Your task to perform on an android device: star an email in the gmail app Image 0: 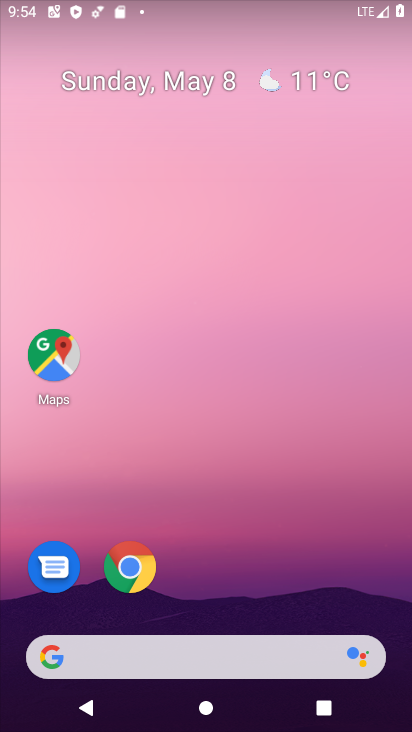
Step 0: drag from (247, 444) to (322, 41)
Your task to perform on an android device: star an email in the gmail app Image 1: 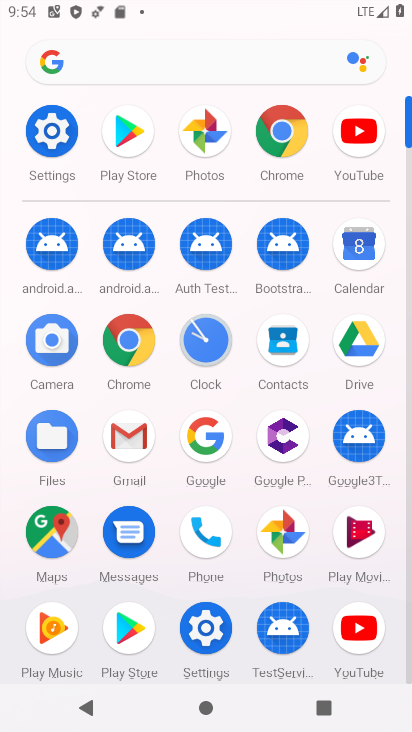
Step 1: click (138, 439)
Your task to perform on an android device: star an email in the gmail app Image 2: 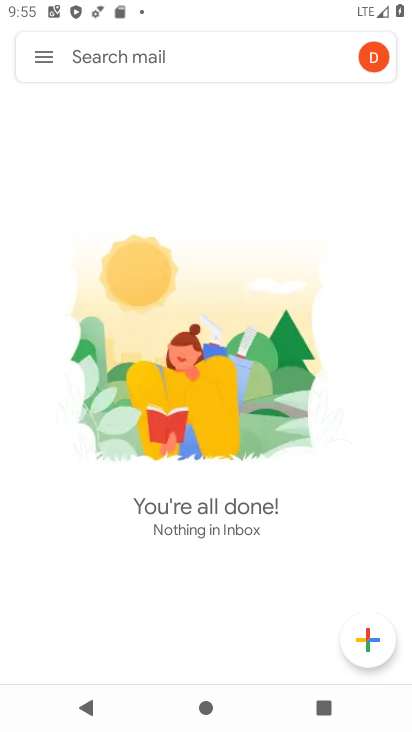
Step 2: click (44, 58)
Your task to perform on an android device: star an email in the gmail app Image 3: 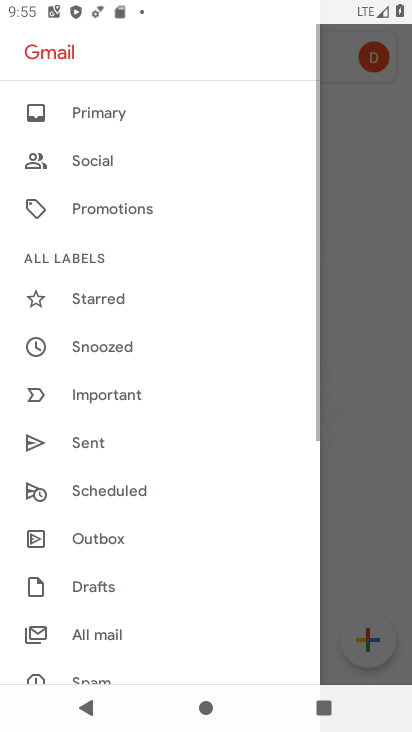
Step 3: click (106, 634)
Your task to perform on an android device: star an email in the gmail app Image 4: 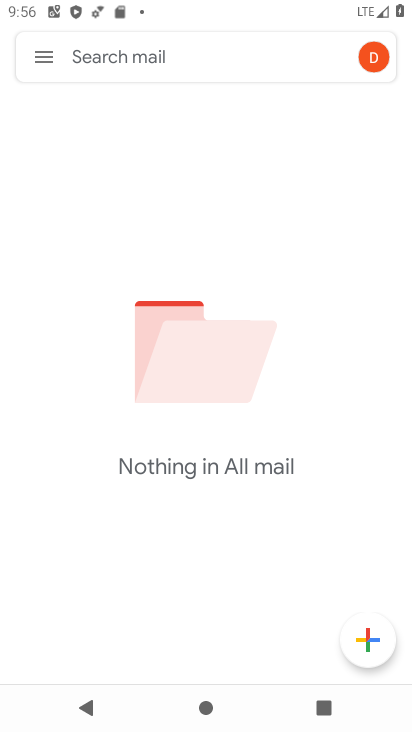
Step 4: click (48, 57)
Your task to perform on an android device: star an email in the gmail app Image 5: 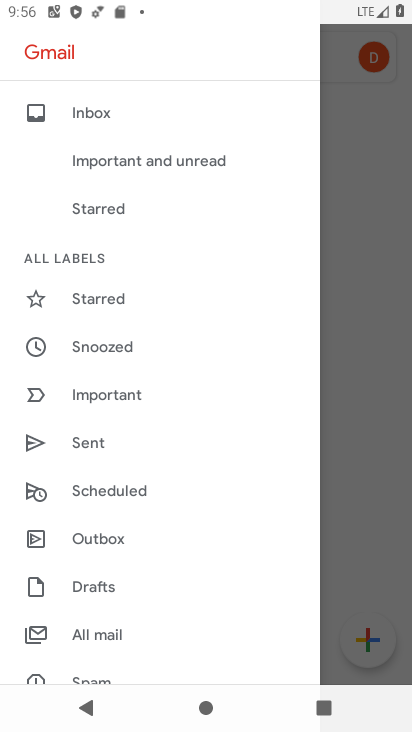
Step 5: click (78, 648)
Your task to perform on an android device: star an email in the gmail app Image 6: 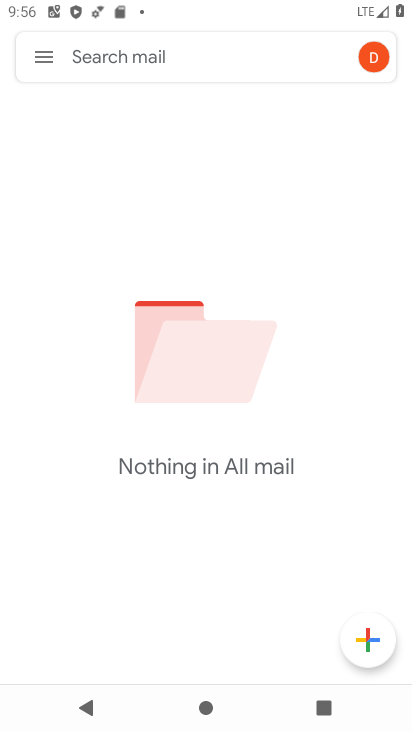
Step 6: task complete